Your task to perform on an android device: What's the weather today? Image 0: 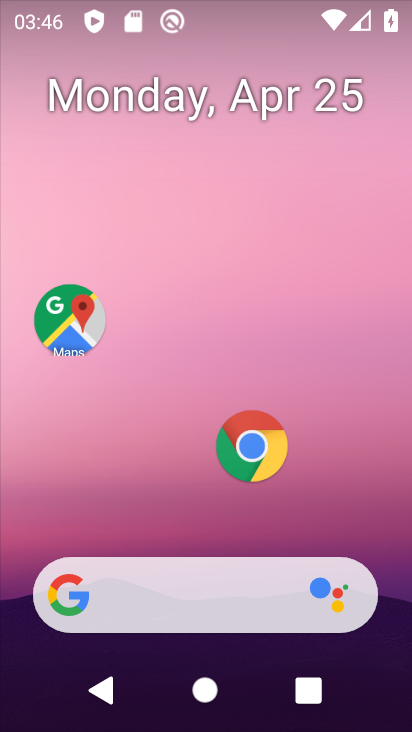
Step 0: click (195, 582)
Your task to perform on an android device: What's the weather today? Image 1: 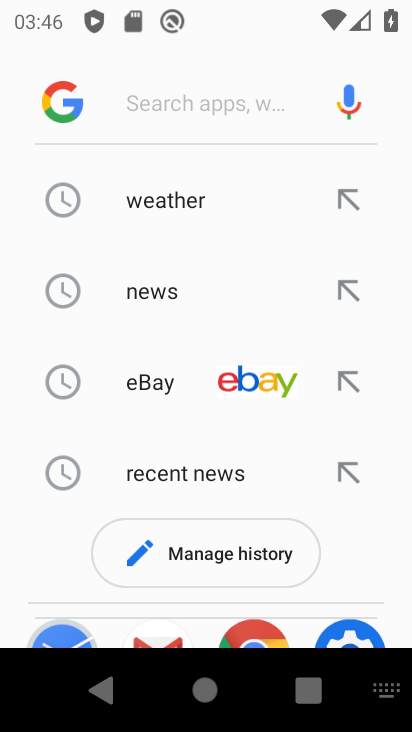
Step 1: click (223, 206)
Your task to perform on an android device: What's the weather today? Image 2: 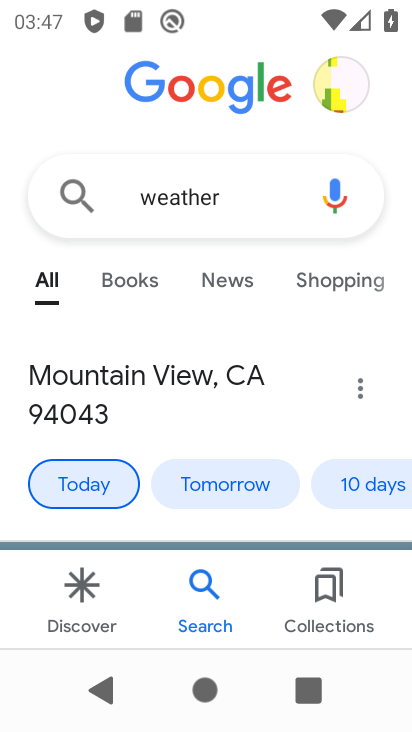
Step 2: task complete